Your task to perform on an android device: Go to Yahoo.com Image 0: 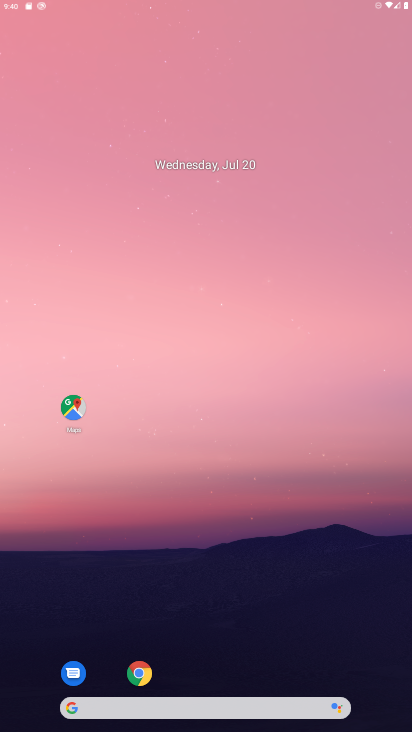
Step 0: drag from (201, 677) to (309, 13)
Your task to perform on an android device: Go to Yahoo.com Image 1: 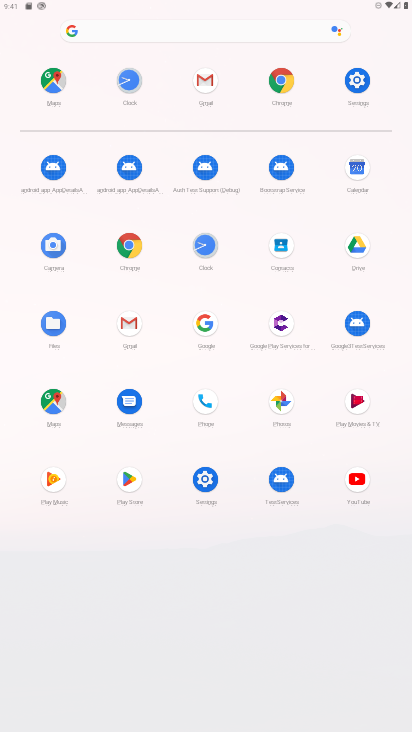
Step 1: click (156, 29)
Your task to perform on an android device: Go to Yahoo.com Image 2: 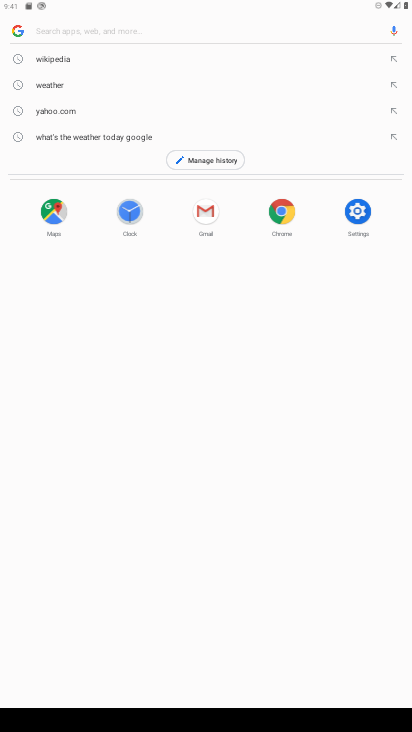
Step 2: click (34, 111)
Your task to perform on an android device: Go to Yahoo.com Image 3: 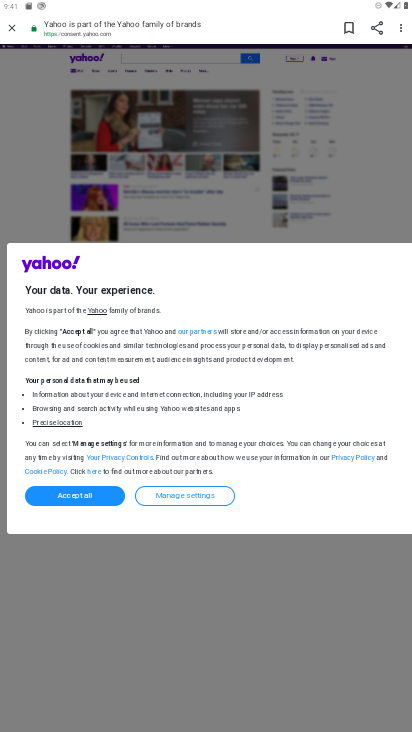
Step 3: task complete